Your task to perform on an android device: turn off sleep mode Image 0: 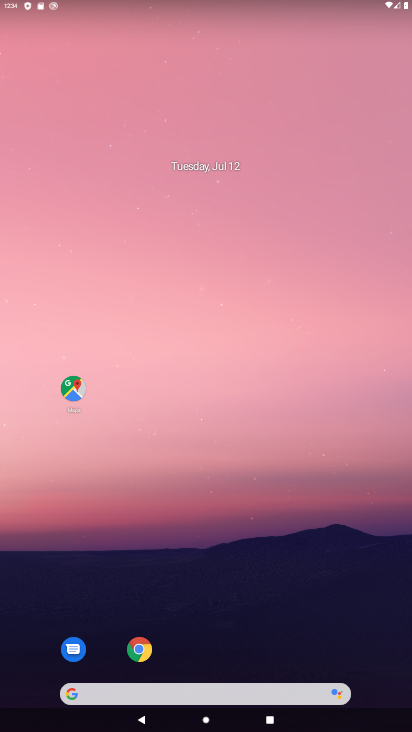
Step 0: drag from (274, 643) to (222, 178)
Your task to perform on an android device: turn off sleep mode Image 1: 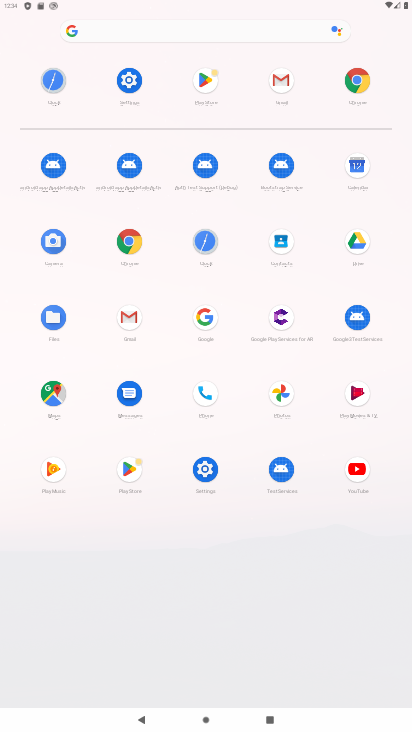
Step 1: click (117, 102)
Your task to perform on an android device: turn off sleep mode Image 2: 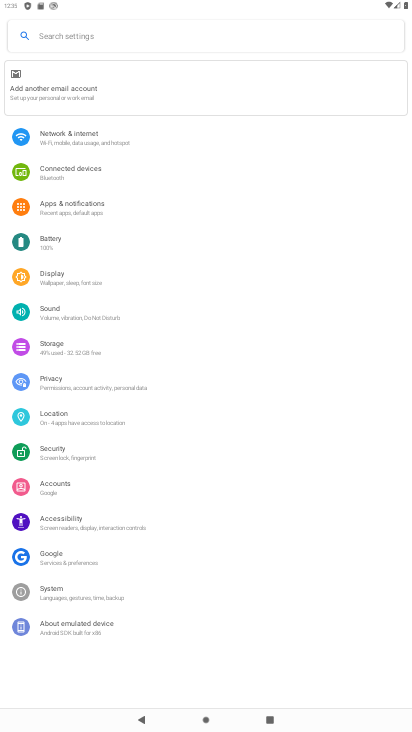
Step 2: click (80, 214)
Your task to perform on an android device: turn off sleep mode Image 3: 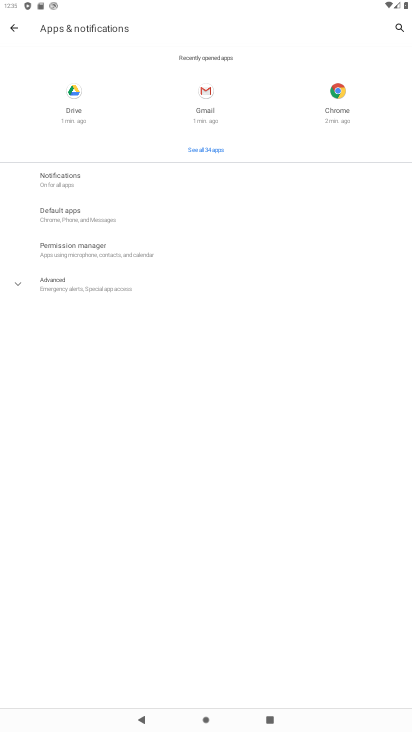
Step 3: click (91, 280)
Your task to perform on an android device: turn off sleep mode Image 4: 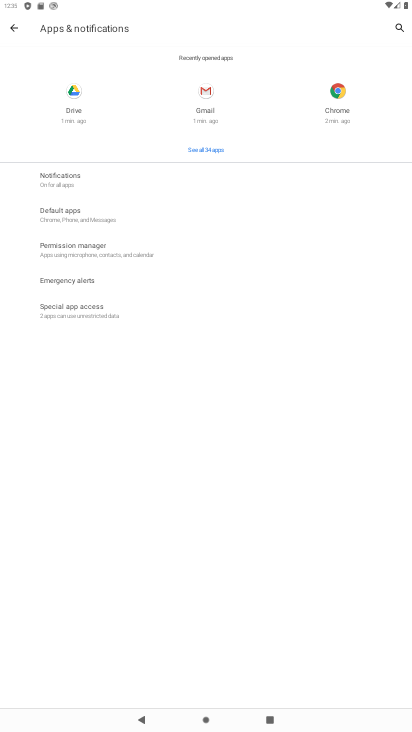
Step 4: click (1, 15)
Your task to perform on an android device: turn off sleep mode Image 5: 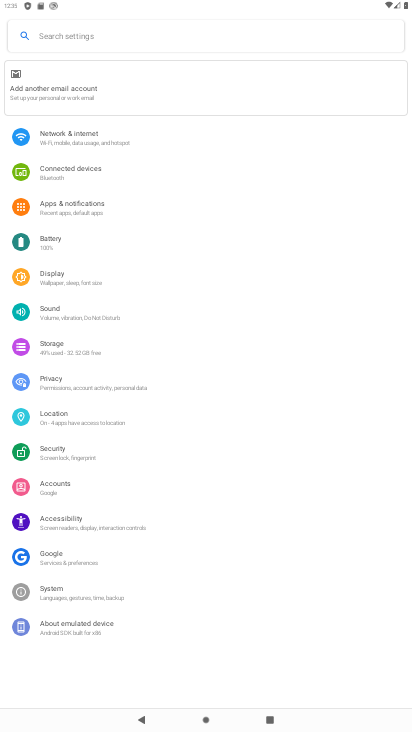
Step 5: click (95, 286)
Your task to perform on an android device: turn off sleep mode Image 6: 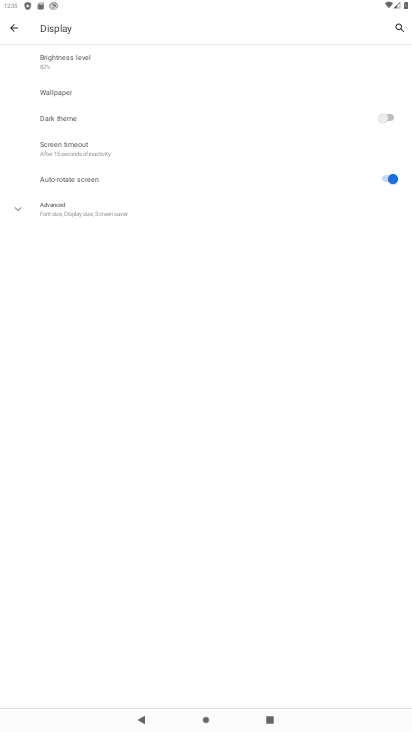
Step 6: click (72, 212)
Your task to perform on an android device: turn off sleep mode Image 7: 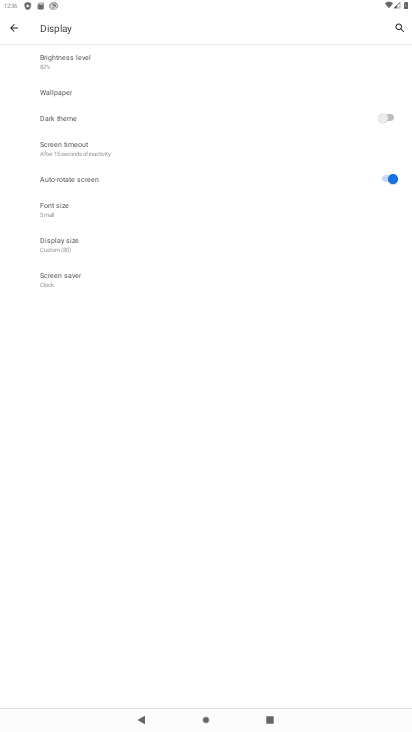
Step 7: click (89, 234)
Your task to perform on an android device: turn off sleep mode Image 8: 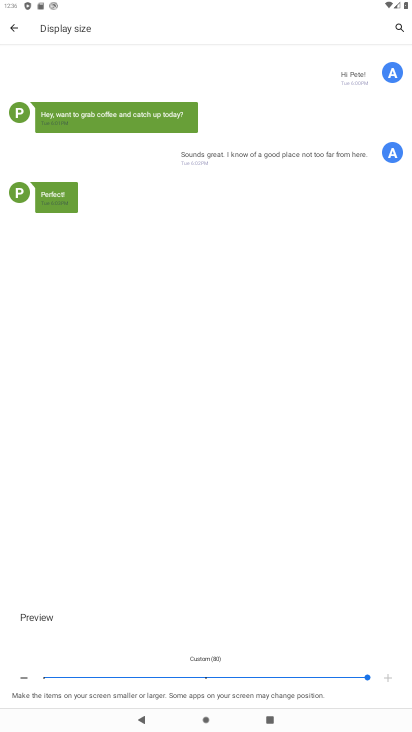
Step 8: click (14, 26)
Your task to perform on an android device: turn off sleep mode Image 9: 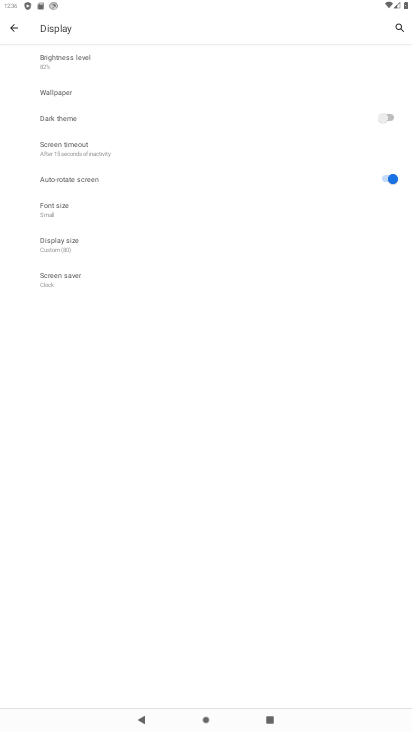
Step 9: click (110, 204)
Your task to perform on an android device: turn off sleep mode Image 10: 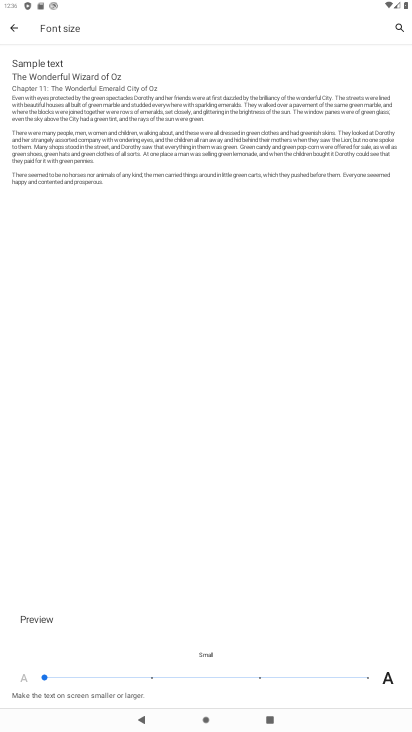
Step 10: task complete